Your task to perform on an android device: Go to wifi settings Image 0: 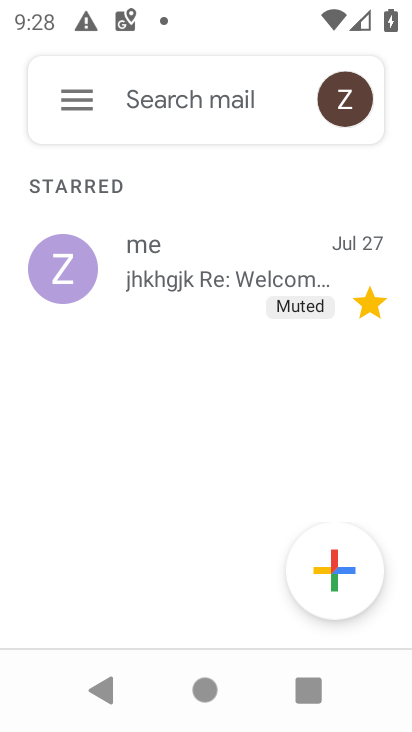
Step 0: press home button
Your task to perform on an android device: Go to wifi settings Image 1: 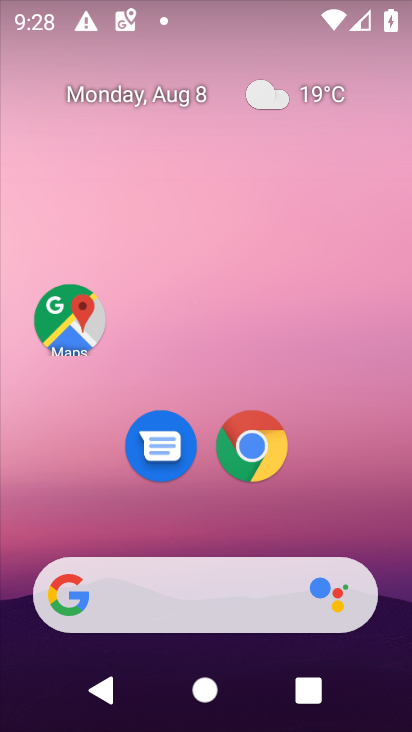
Step 1: drag from (330, 493) to (363, 164)
Your task to perform on an android device: Go to wifi settings Image 2: 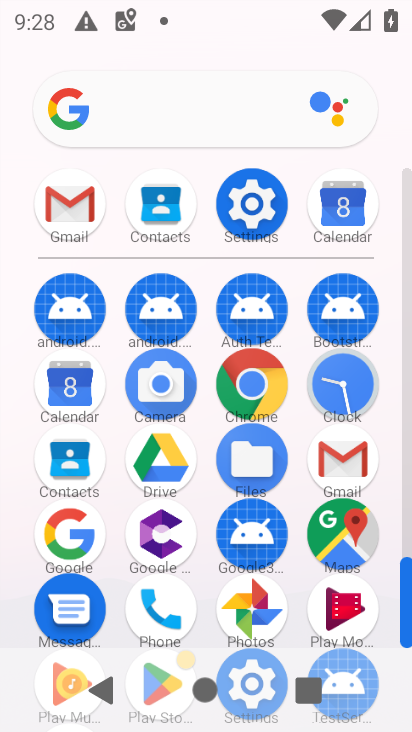
Step 2: click (250, 203)
Your task to perform on an android device: Go to wifi settings Image 3: 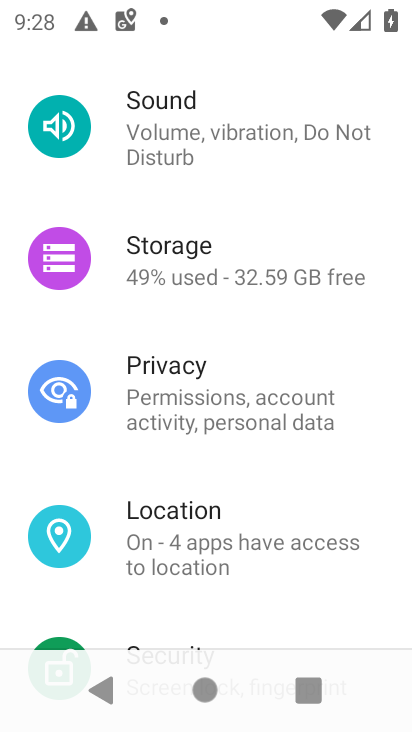
Step 3: drag from (317, 140) to (292, 366)
Your task to perform on an android device: Go to wifi settings Image 4: 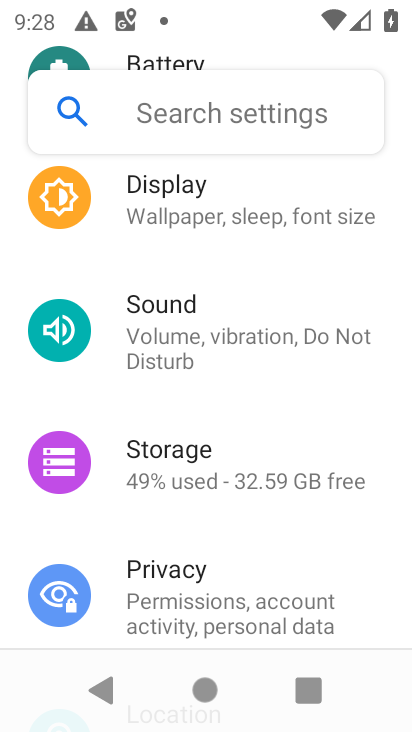
Step 4: drag from (288, 196) to (241, 470)
Your task to perform on an android device: Go to wifi settings Image 5: 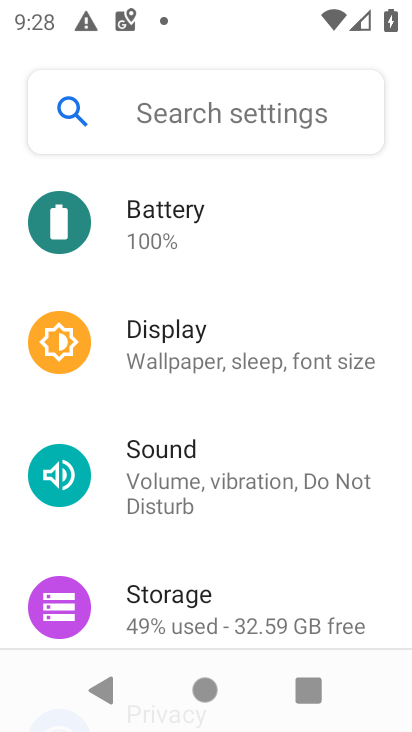
Step 5: drag from (286, 252) to (290, 474)
Your task to perform on an android device: Go to wifi settings Image 6: 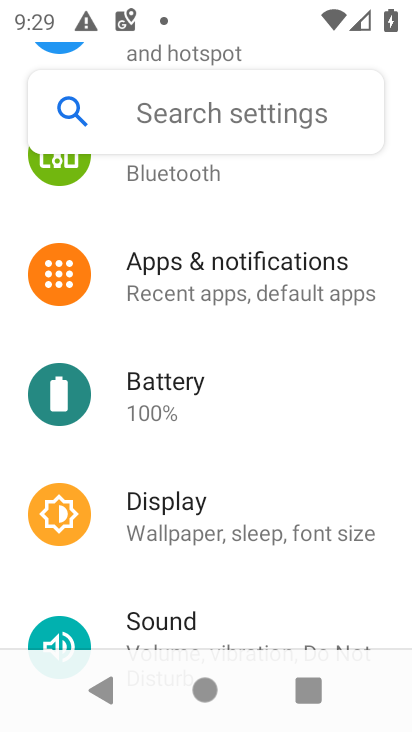
Step 6: drag from (306, 188) to (292, 479)
Your task to perform on an android device: Go to wifi settings Image 7: 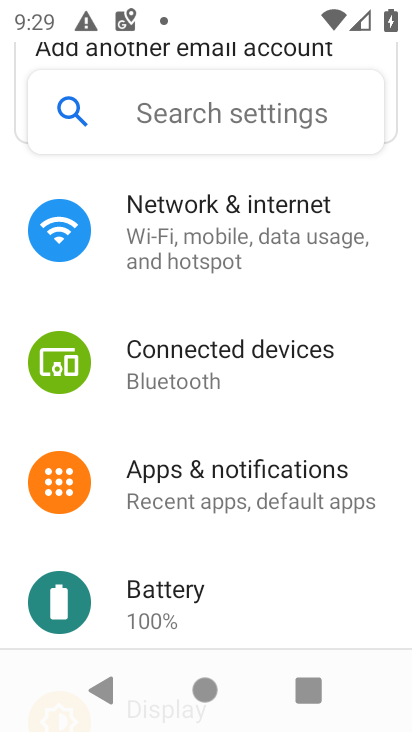
Step 7: click (219, 232)
Your task to perform on an android device: Go to wifi settings Image 8: 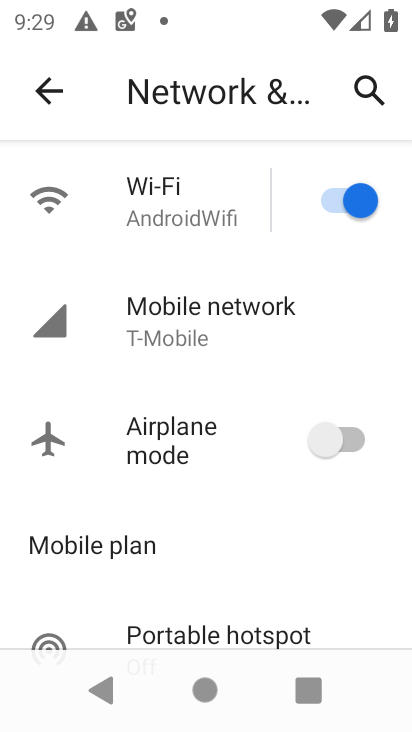
Step 8: click (141, 172)
Your task to perform on an android device: Go to wifi settings Image 9: 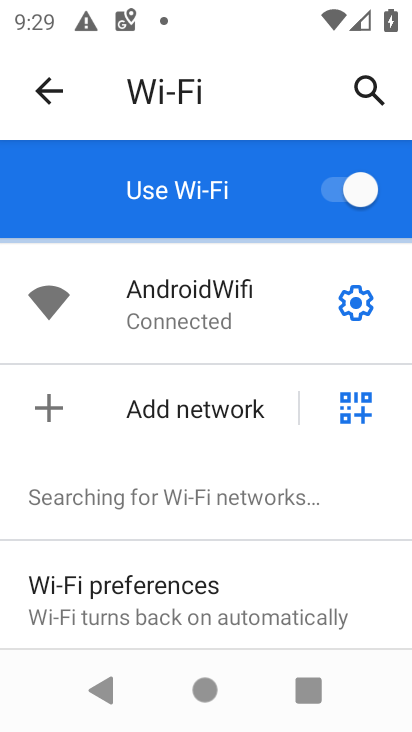
Step 9: task complete